Your task to perform on an android device: Open network settings Image 0: 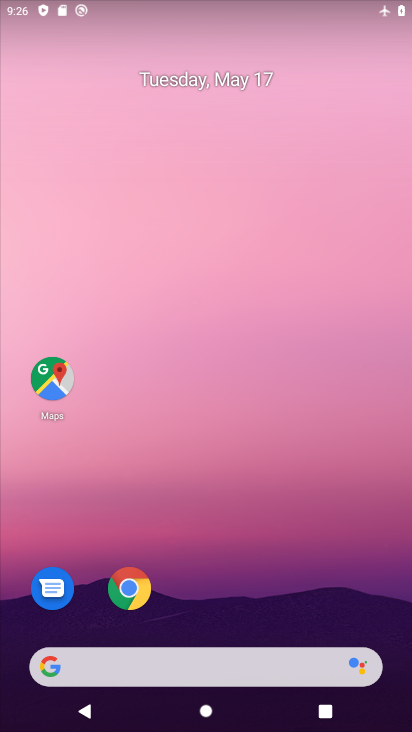
Step 0: drag from (236, 720) to (249, 155)
Your task to perform on an android device: Open network settings Image 1: 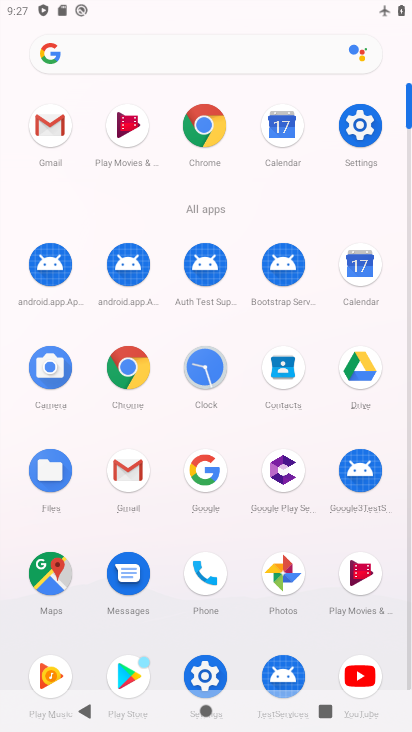
Step 1: click (357, 121)
Your task to perform on an android device: Open network settings Image 2: 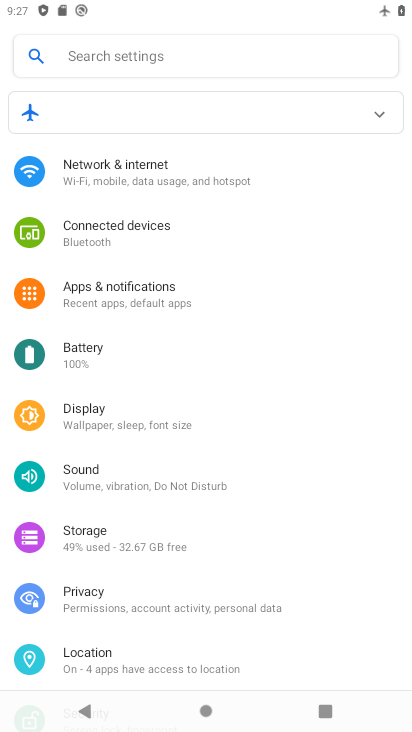
Step 2: click (131, 177)
Your task to perform on an android device: Open network settings Image 3: 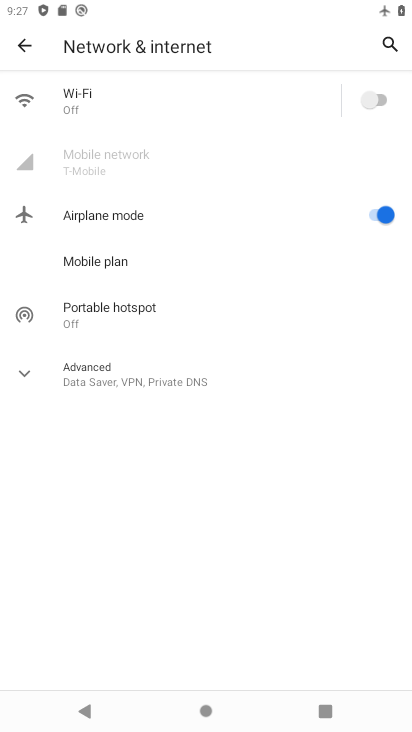
Step 3: click (378, 211)
Your task to perform on an android device: Open network settings Image 4: 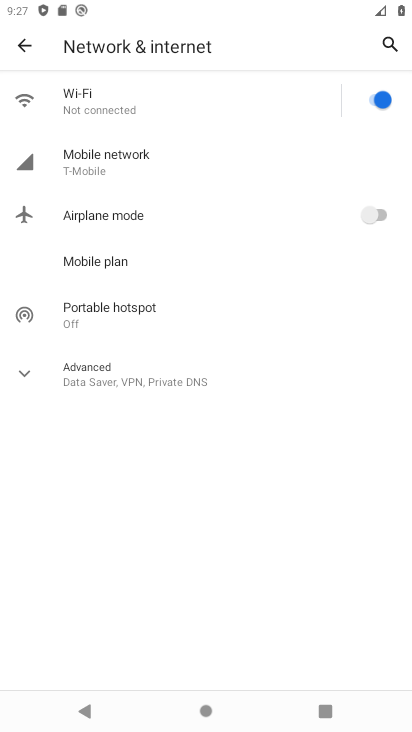
Step 4: click (132, 155)
Your task to perform on an android device: Open network settings Image 5: 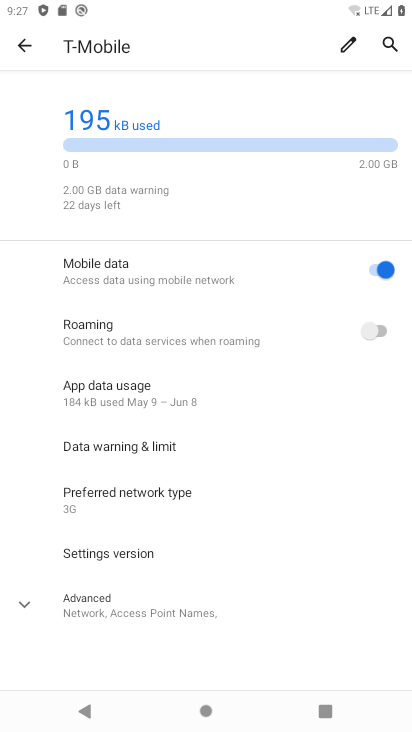
Step 5: task complete